Your task to perform on an android device: When is my next appointment? Image 0: 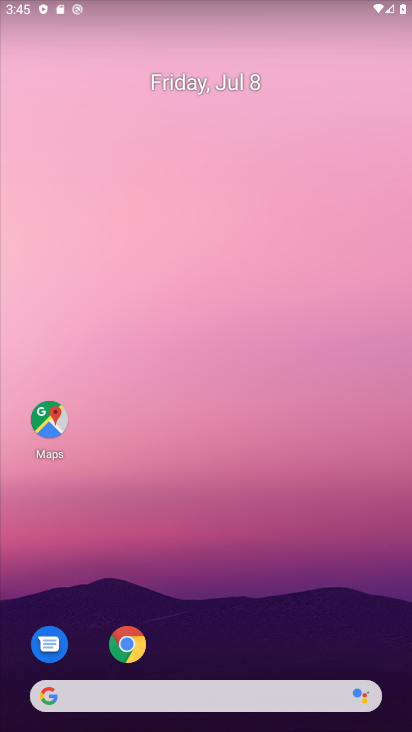
Step 0: press home button
Your task to perform on an android device: When is my next appointment? Image 1: 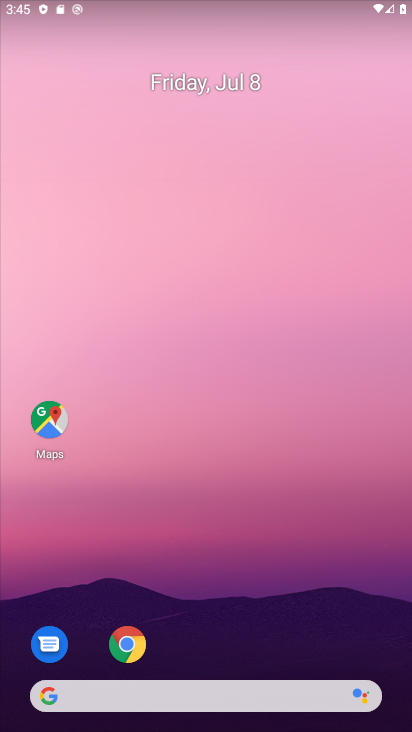
Step 1: click (258, 6)
Your task to perform on an android device: When is my next appointment? Image 2: 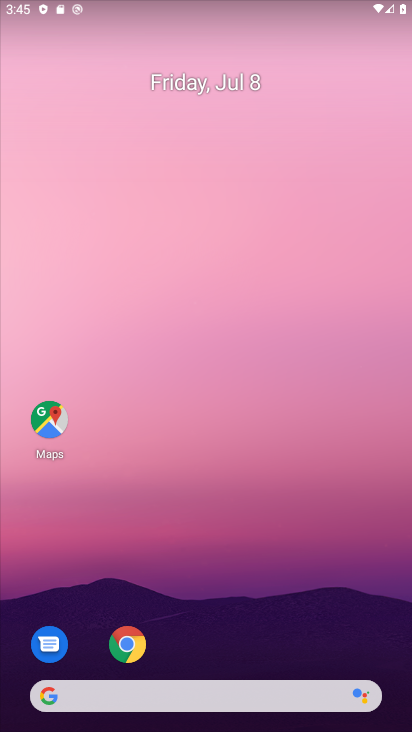
Step 2: drag from (290, 560) to (252, 0)
Your task to perform on an android device: When is my next appointment? Image 3: 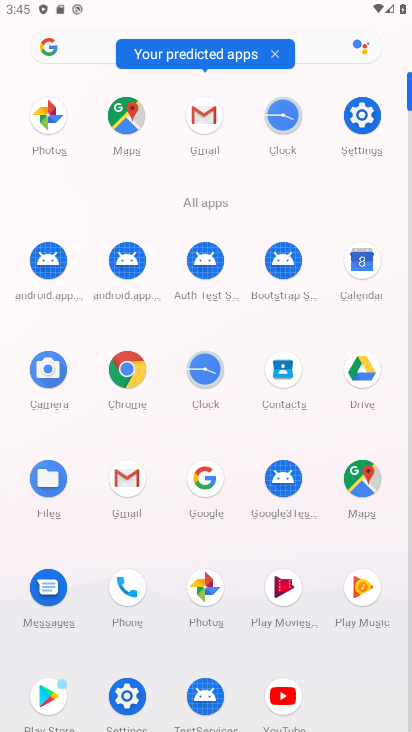
Step 3: click (362, 267)
Your task to perform on an android device: When is my next appointment? Image 4: 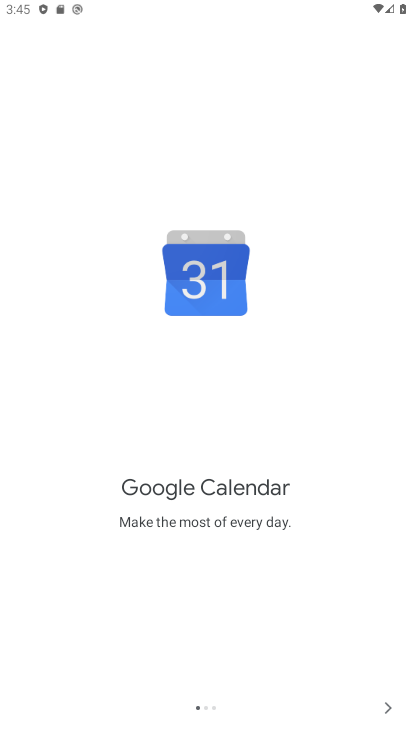
Step 4: click (399, 710)
Your task to perform on an android device: When is my next appointment? Image 5: 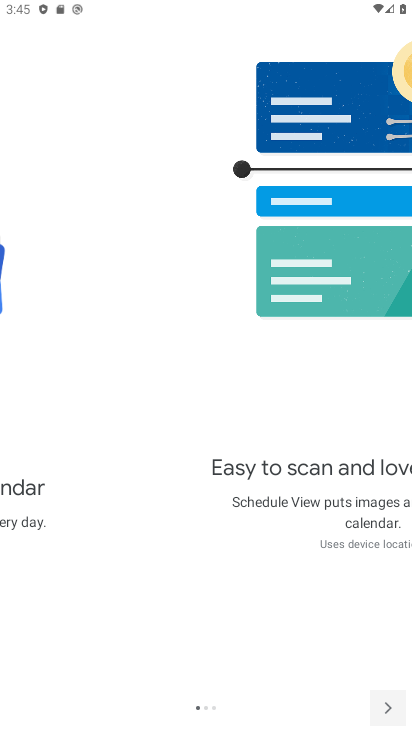
Step 5: click (394, 708)
Your task to perform on an android device: When is my next appointment? Image 6: 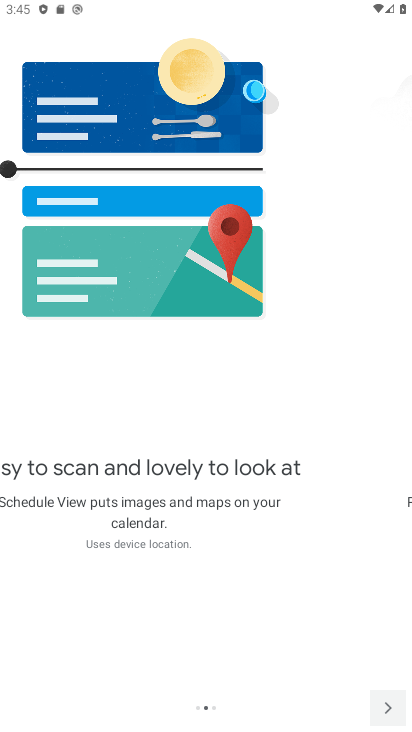
Step 6: click (394, 708)
Your task to perform on an android device: When is my next appointment? Image 7: 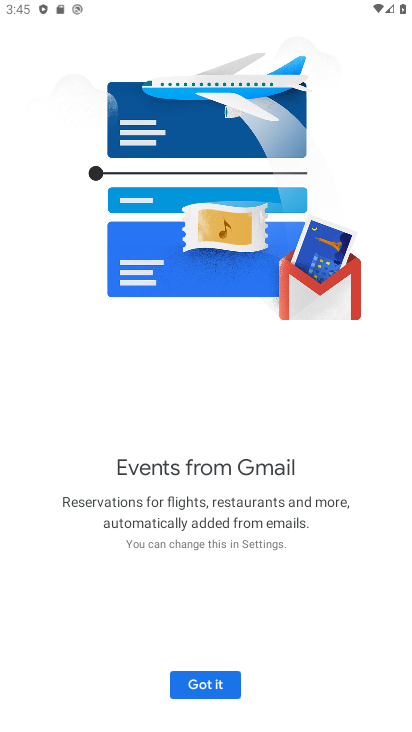
Step 7: click (208, 687)
Your task to perform on an android device: When is my next appointment? Image 8: 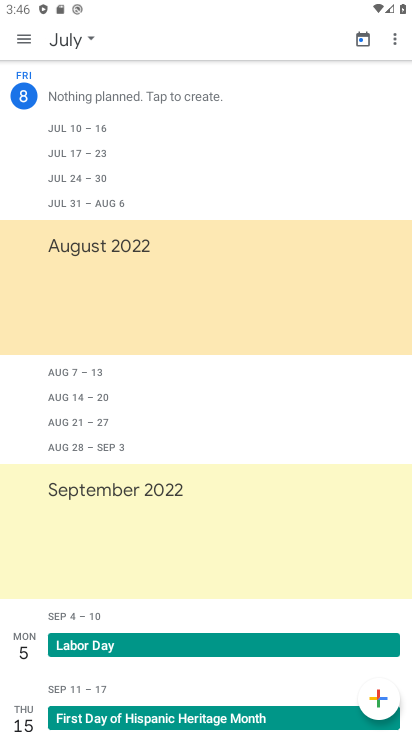
Step 8: click (17, 38)
Your task to perform on an android device: When is my next appointment? Image 9: 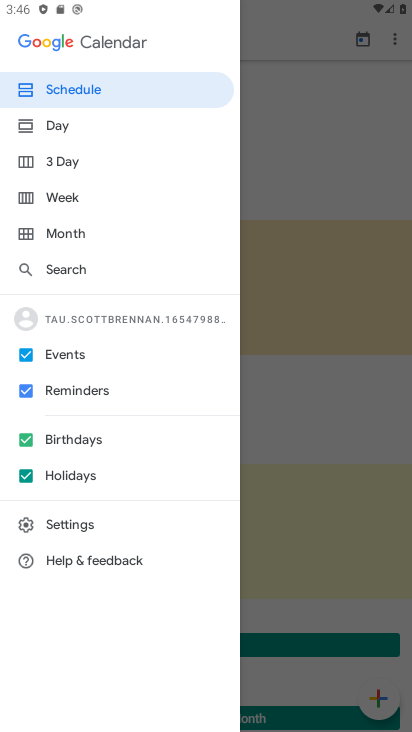
Step 9: click (61, 89)
Your task to perform on an android device: When is my next appointment? Image 10: 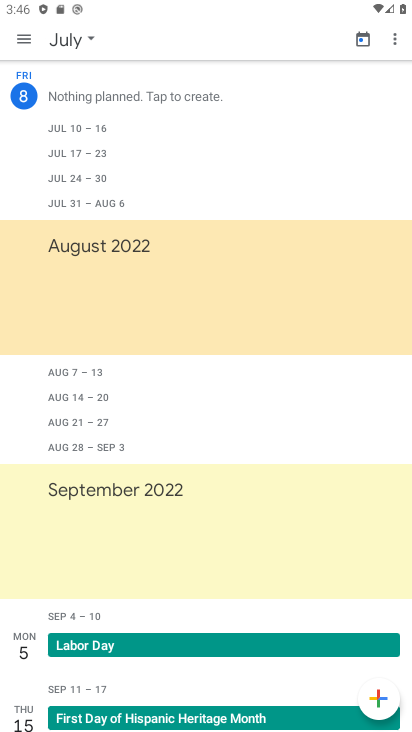
Step 10: task complete